Your task to perform on an android device: make emails show in primary in the gmail app Image 0: 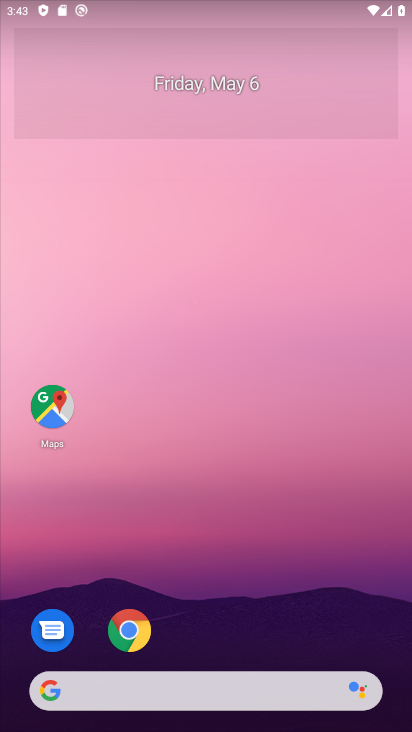
Step 0: drag from (226, 355) to (267, 91)
Your task to perform on an android device: make emails show in primary in the gmail app Image 1: 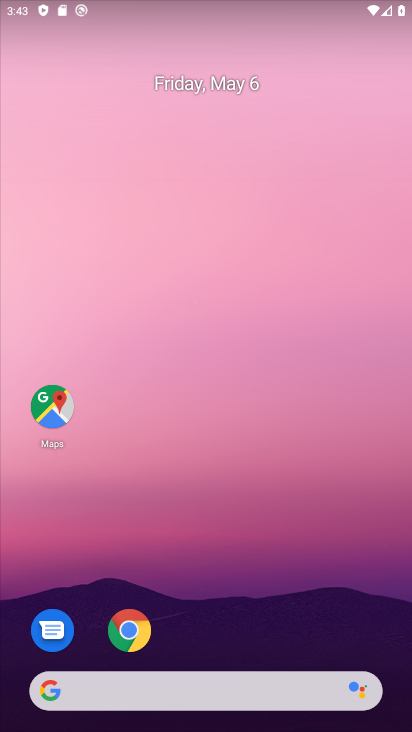
Step 1: drag from (218, 628) to (318, 121)
Your task to perform on an android device: make emails show in primary in the gmail app Image 2: 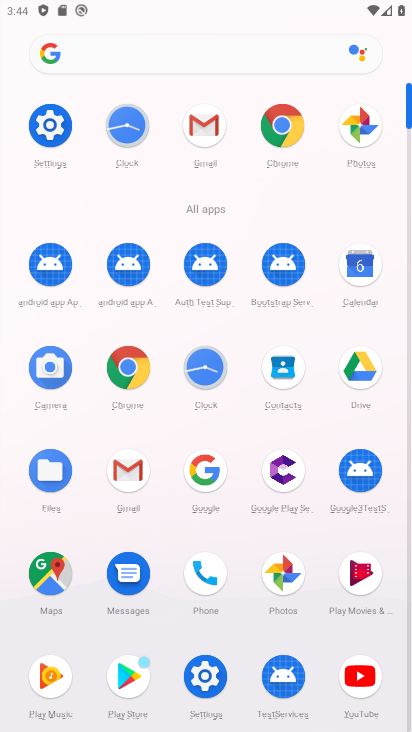
Step 2: click (208, 133)
Your task to perform on an android device: make emails show in primary in the gmail app Image 3: 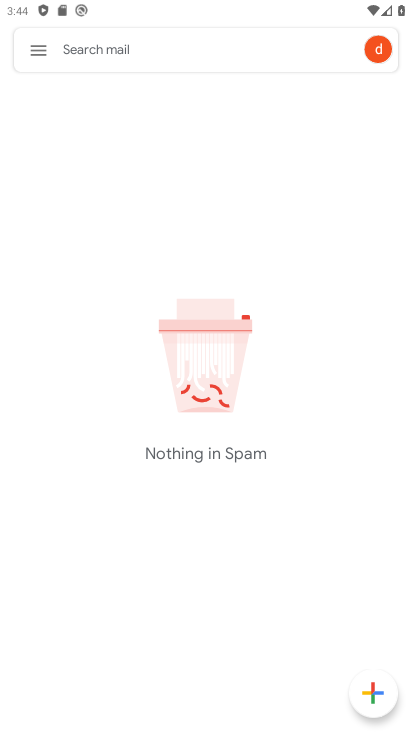
Step 3: click (38, 49)
Your task to perform on an android device: make emails show in primary in the gmail app Image 4: 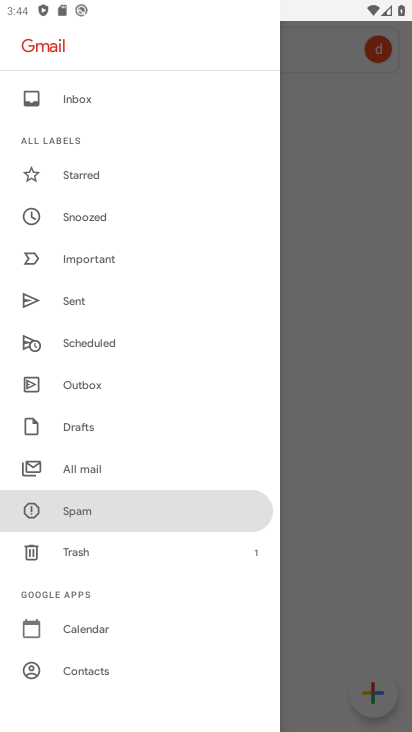
Step 4: drag from (140, 523) to (215, 74)
Your task to perform on an android device: make emails show in primary in the gmail app Image 5: 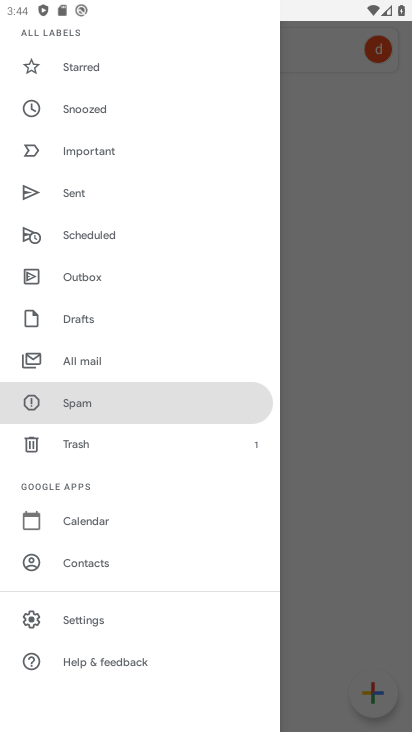
Step 5: click (90, 616)
Your task to perform on an android device: make emails show in primary in the gmail app Image 6: 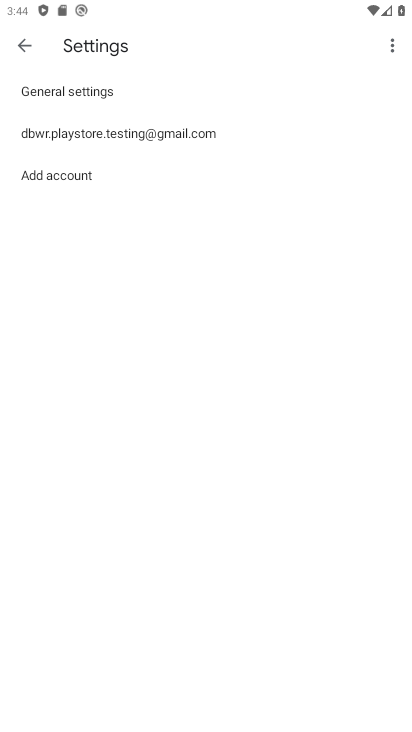
Step 6: click (133, 126)
Your task to perform on an android device: make emails show in primary in the gmail app Image 7: 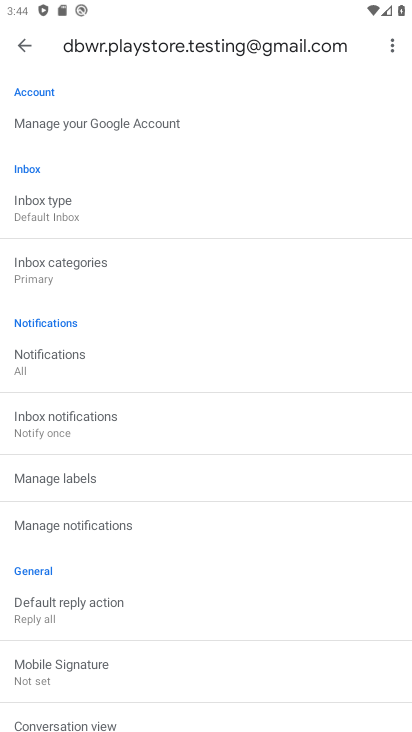
Step 7: click (71, 256)
Your task to perform on an android device: make emails show in primary in the gmail app Image 8: 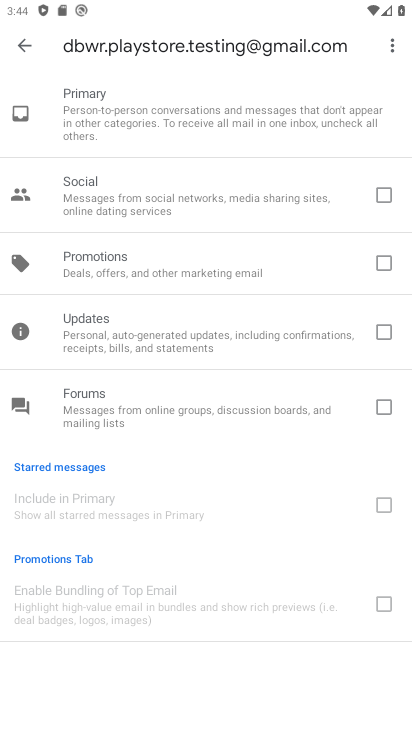
Step 8: drag from (242, 214) to (231, 498)
Your task to perform on an android device: make emails show in primary in the gmail app Image 9: 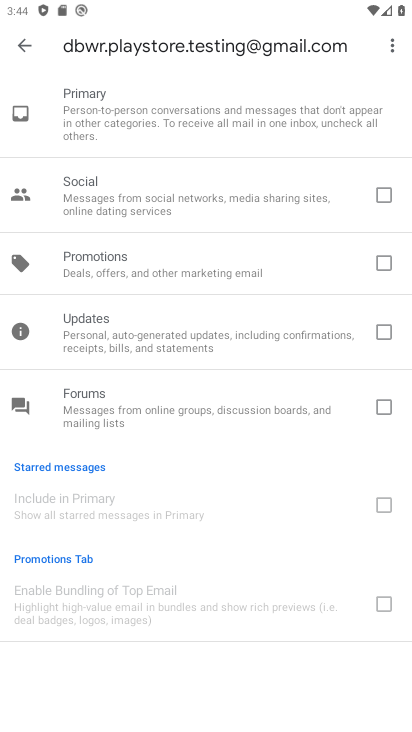
Step 9: click (375, 196)
Your task to perform on an android device: make emails show in primary in the gmail app Image 10: 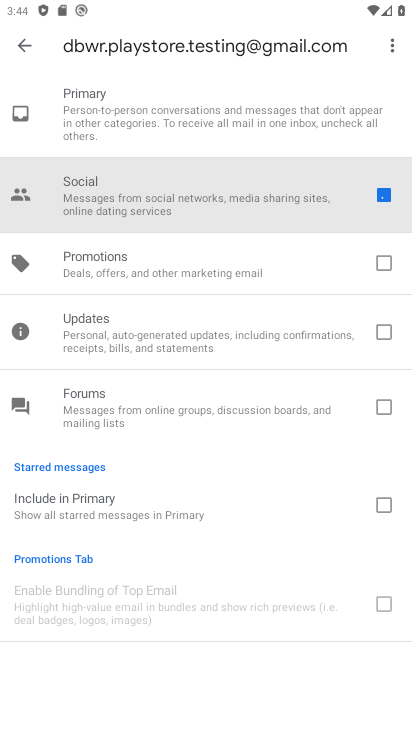
Step 10: click (383, 264)
Your task to perform on an android device: make emails show in primary in the gmail app Image 11: 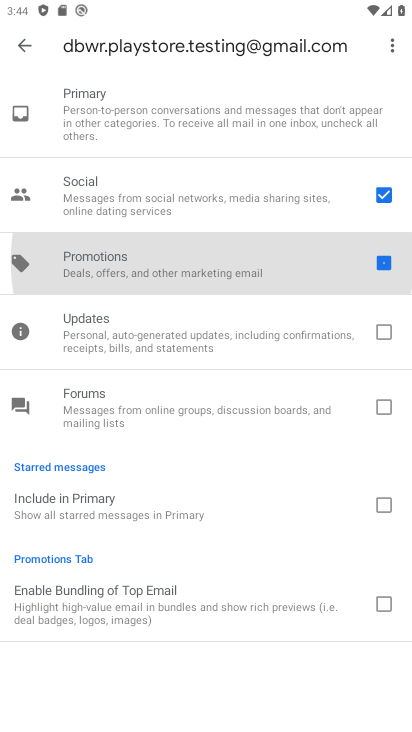
Step 11: click (388, 333)
Your task to perform on an android device: make emails show in primary in the gmail app Image 12: 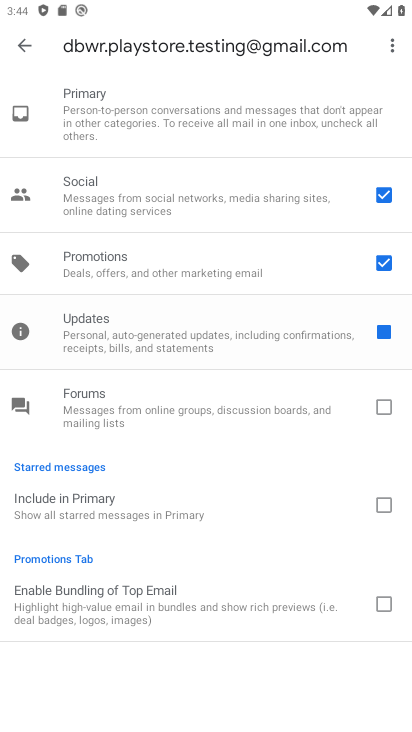
Step 12: click (387, 408)
Your task to perform on an android device: make emails show in primary in the gmail app Image 13: 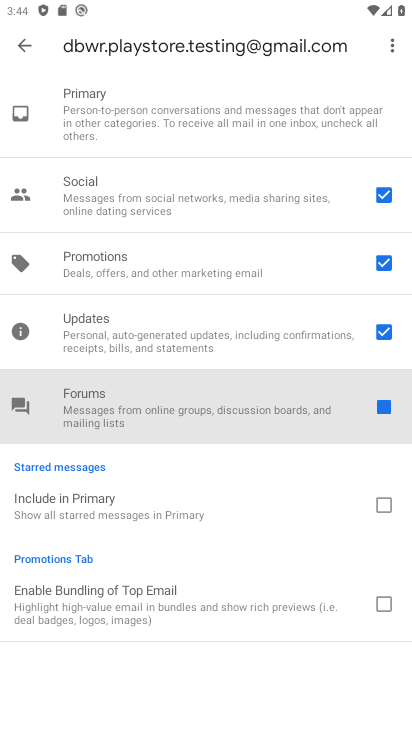
Step 13: click (388, 508)
Your task to perform on an android device: make emails show in primary in the gmail app Image 14: 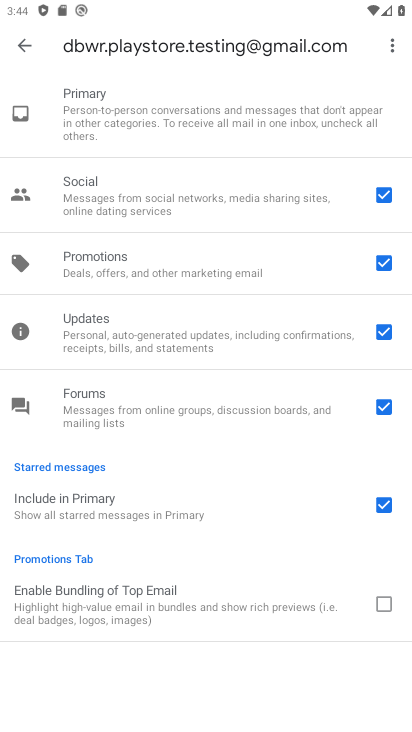
Step 14: task complete